Your task to perform on an android device: toggle priority inbox in the gmail app Image 0: 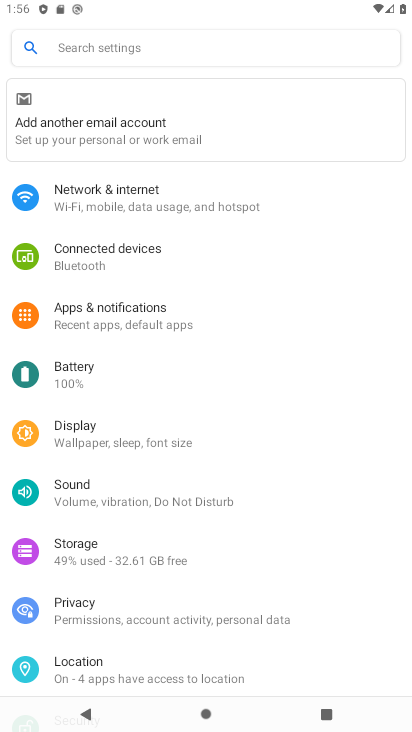
Step 0: press home button
Your task to perform on an android device: toggle priority inbox in the gmail app Image 1: 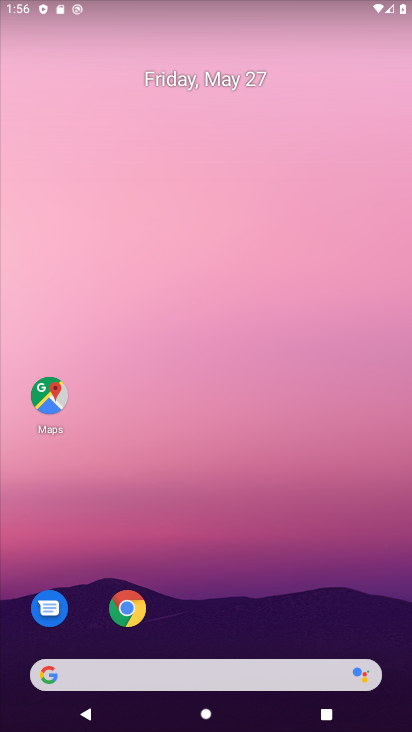
Step 1: drag from (220, 615) to (159, 223)
Your task to perform on an android device: toggle priority inbox in the gmail app Image 2: 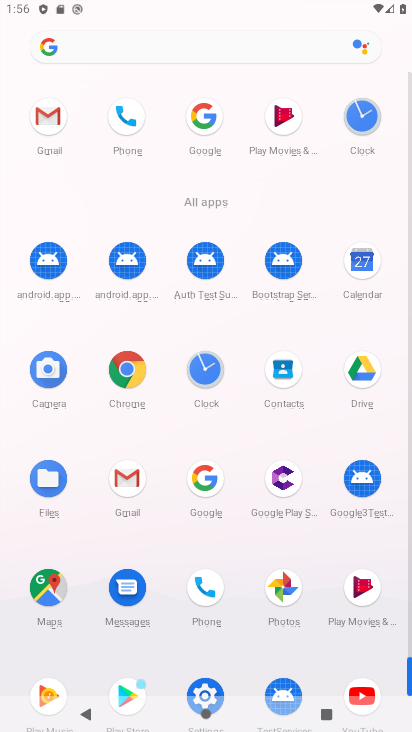
Step 2: click (50, 115)
Your task to perform on an android device: toggle priority inbox in the gmail app Image 3: 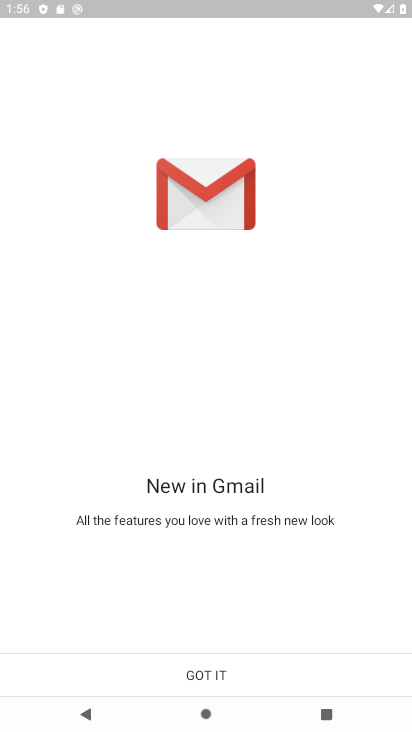
Step 3: click (195, 677)
Your task to perform on an android device: toggle priority inbox in the gmail app Image 4: 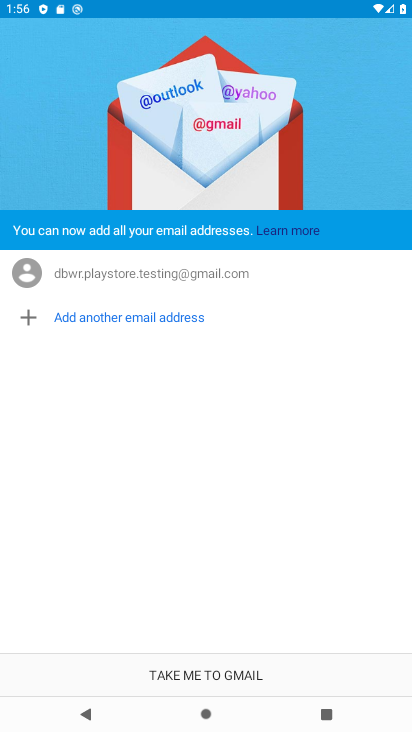
Step 4: click (197, 675)
Your task to perform on an android device: toggle priority inbox in the gmail app Image 5: 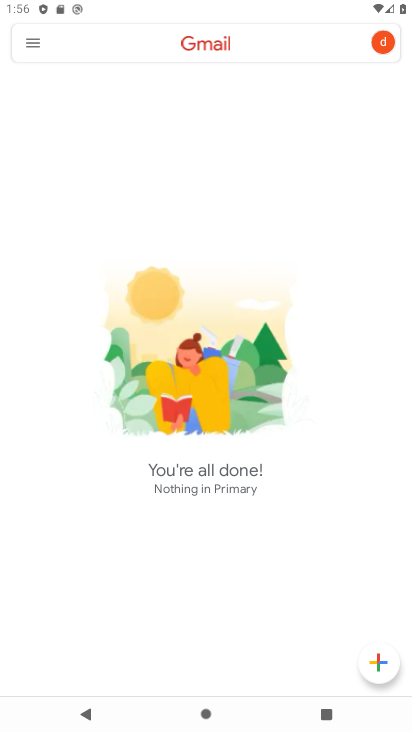
Step 5: click (36, 42)
Your task to perform on an android device: toggle priority inbox in the gmail app Image 6: 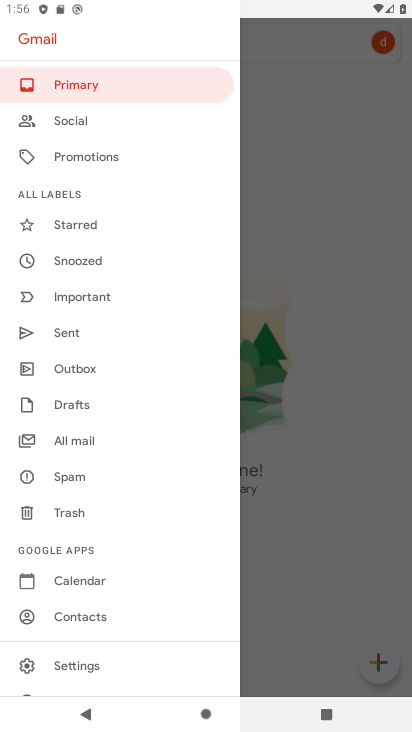
Step 6: click (69, 666)
Your task to perform on an android device: toggle priority inbox in the gmail app Image 7: 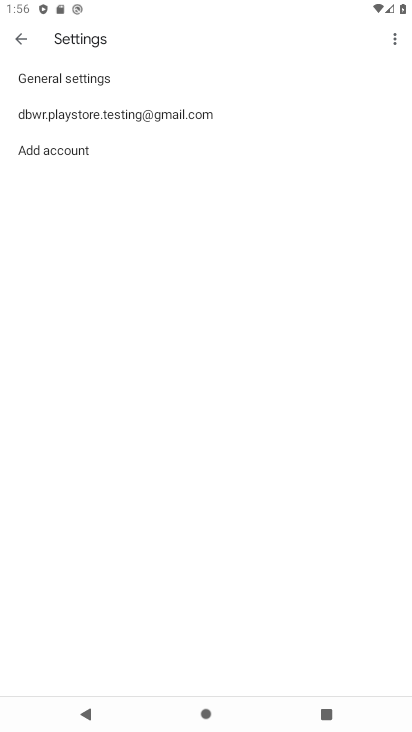
Step 7: click (72, 120)
Your task to perform on an android device: toggle priority inbox in the gmail app Image 8: 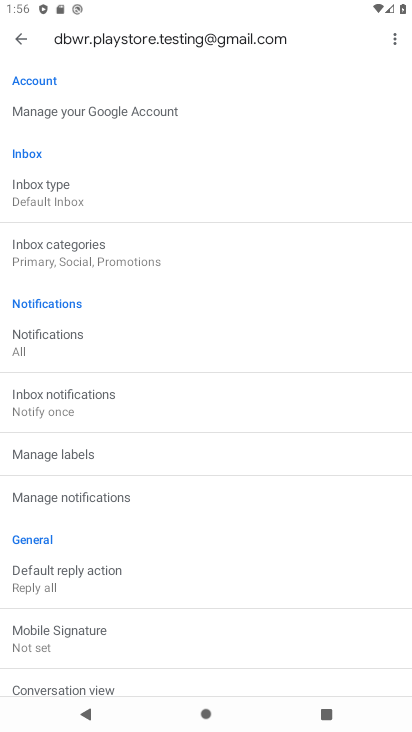
Step 8: click (59, 205)
Your task to perform on an android device: toggle priority inbox in the gmail app Image 9: 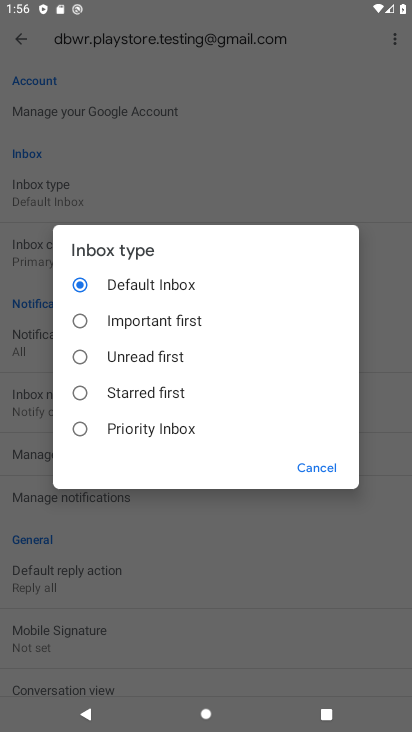
Step 9: click (79, 431)
Your task to perform on an android device: toggle priority inbox in the gmail app Image 10: 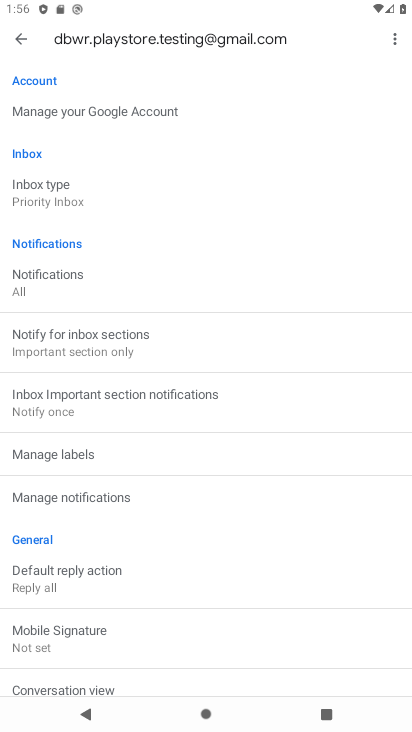
Step 10: task complete